Your task to perform on an android device: uninstall "Calculator" Image 0: 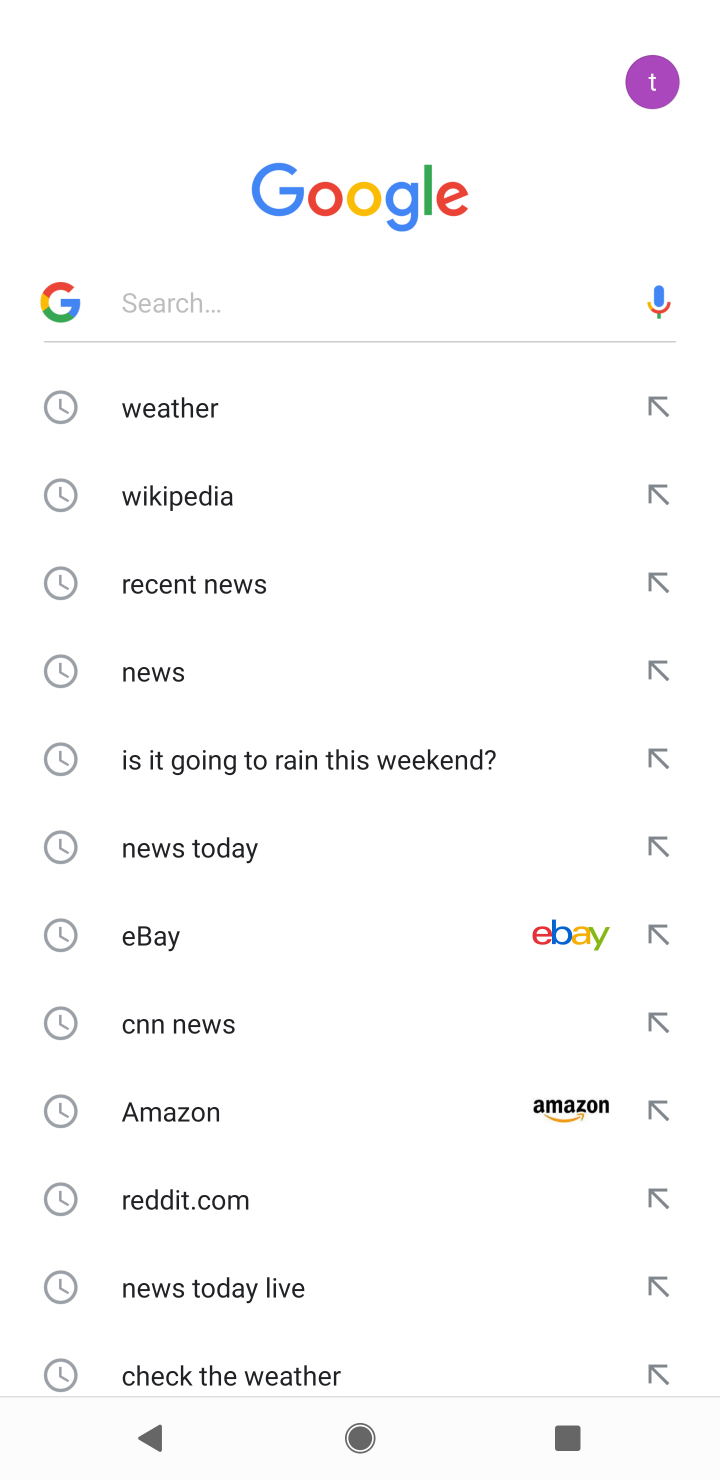
Step 0: press back button
Your task to perform on an android device: uninstall "Calculator" Image 1: 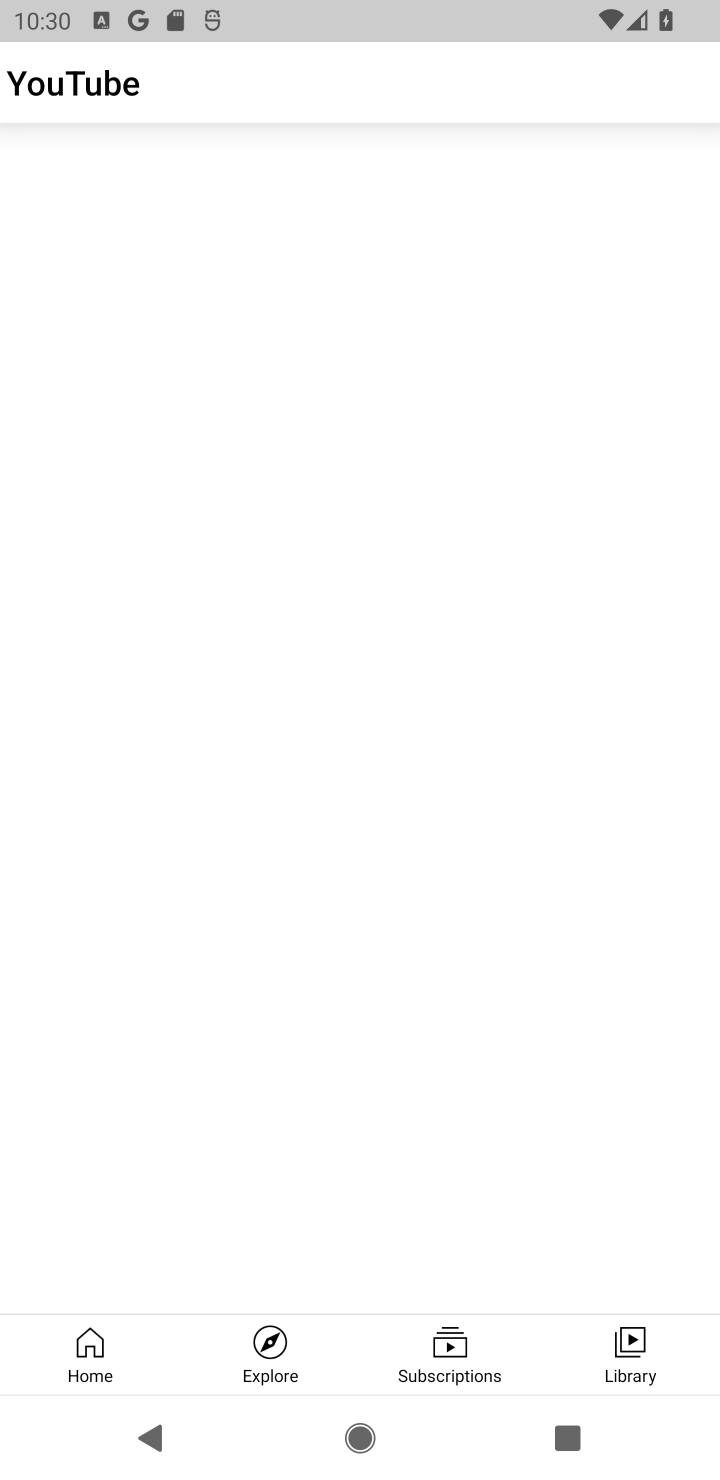
Step 1: press back button
Your task to perform on an android device: uninstall "Calculator" Image 2: 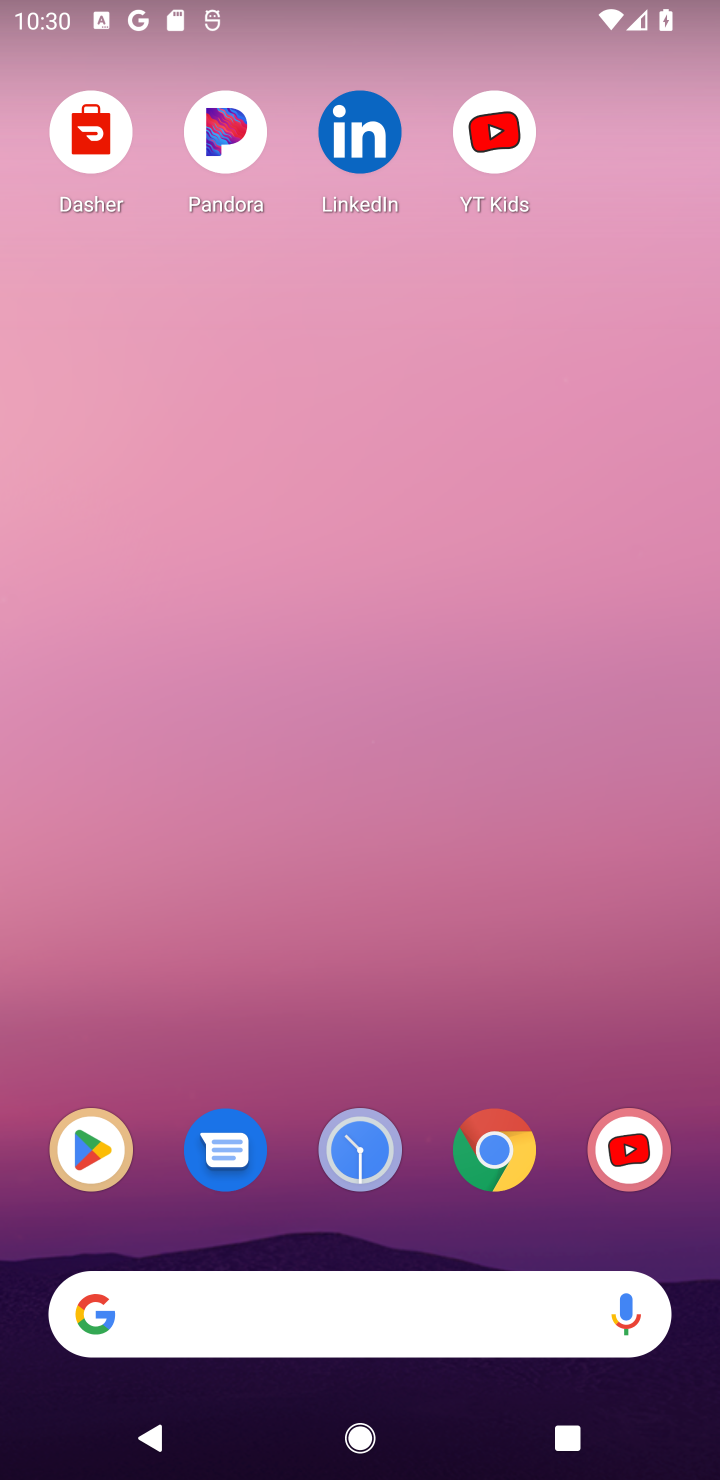
Step 2: click (66, 1157)
Your task to perform on an android device: uninstall "Calculator" Image 3: 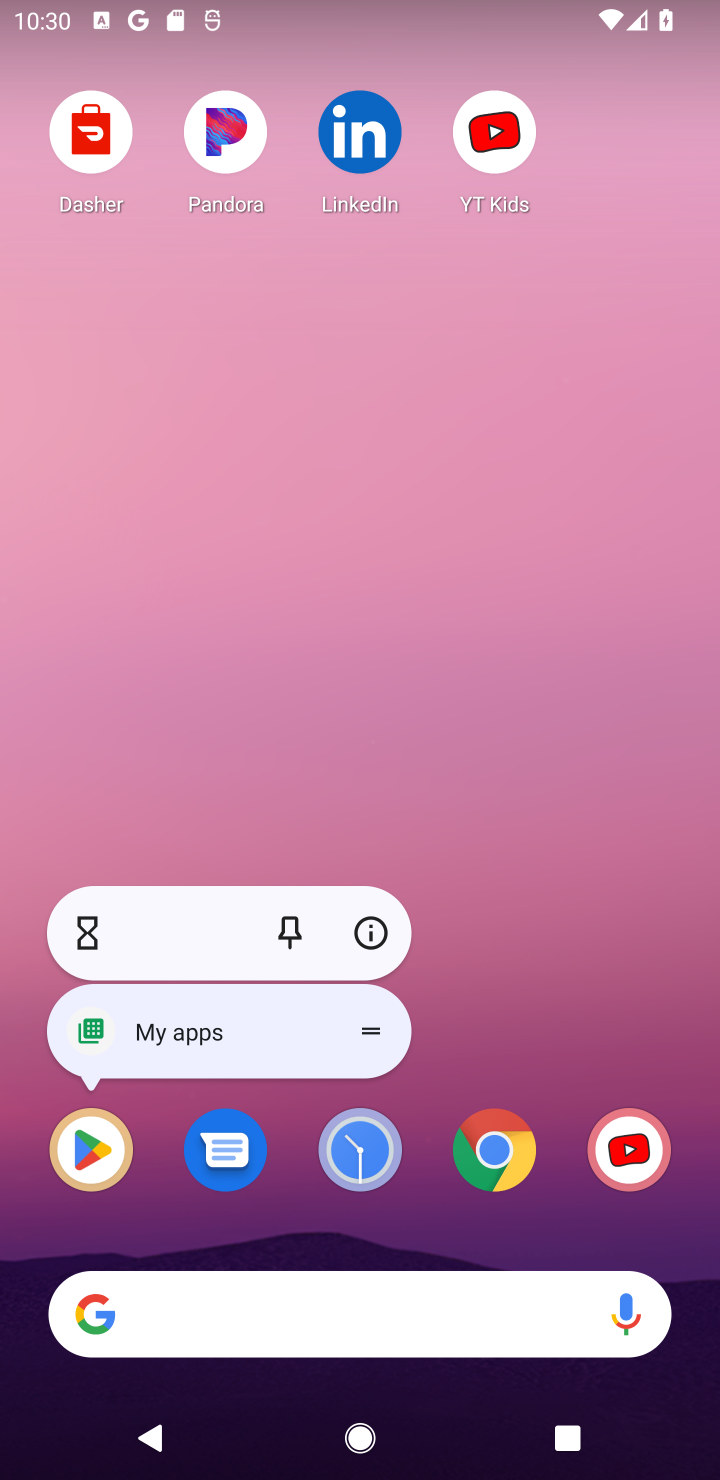
Step 3: click (98, 1148)
Your task to perform on an android device: uninstall "Calculator" Image 4: 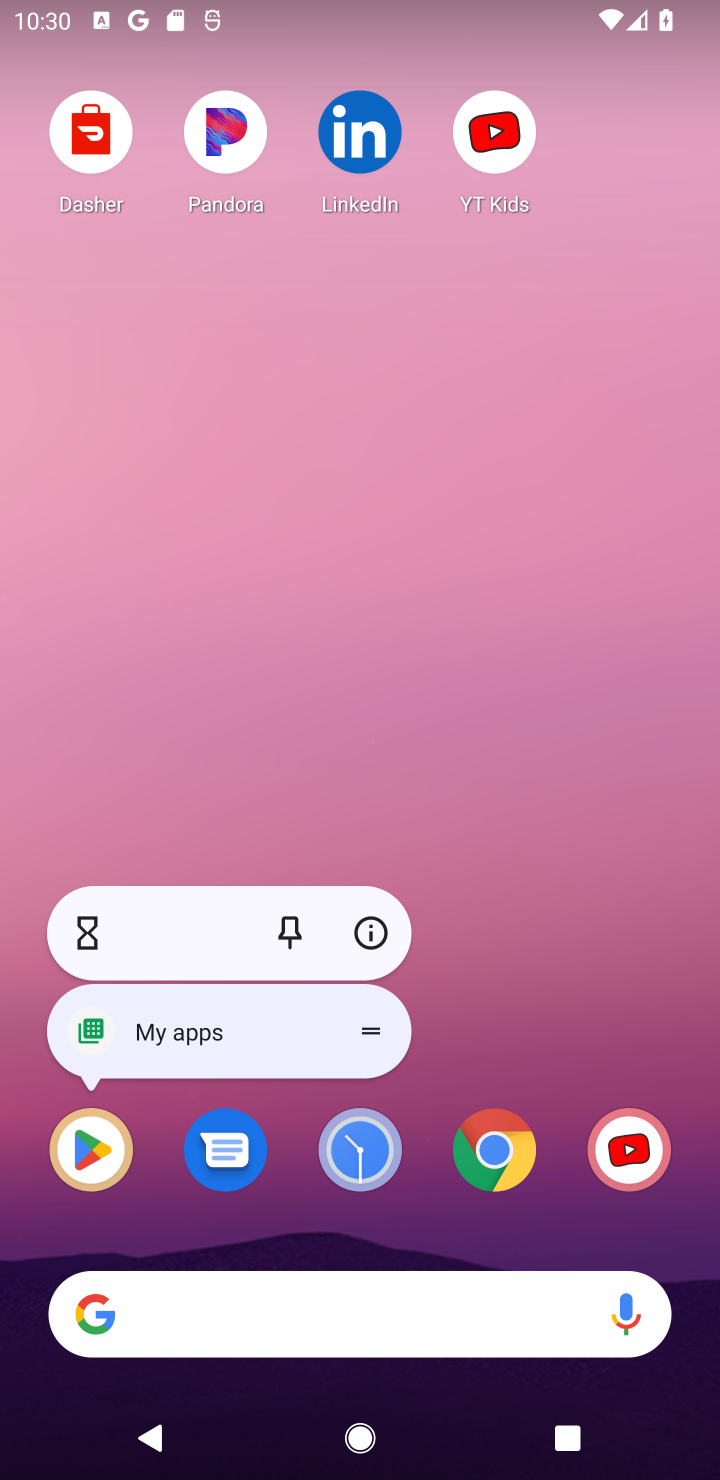
Step 4: click (106, 1151)
Your task to perform on an android device: uninstall "Calculator" Image 5: 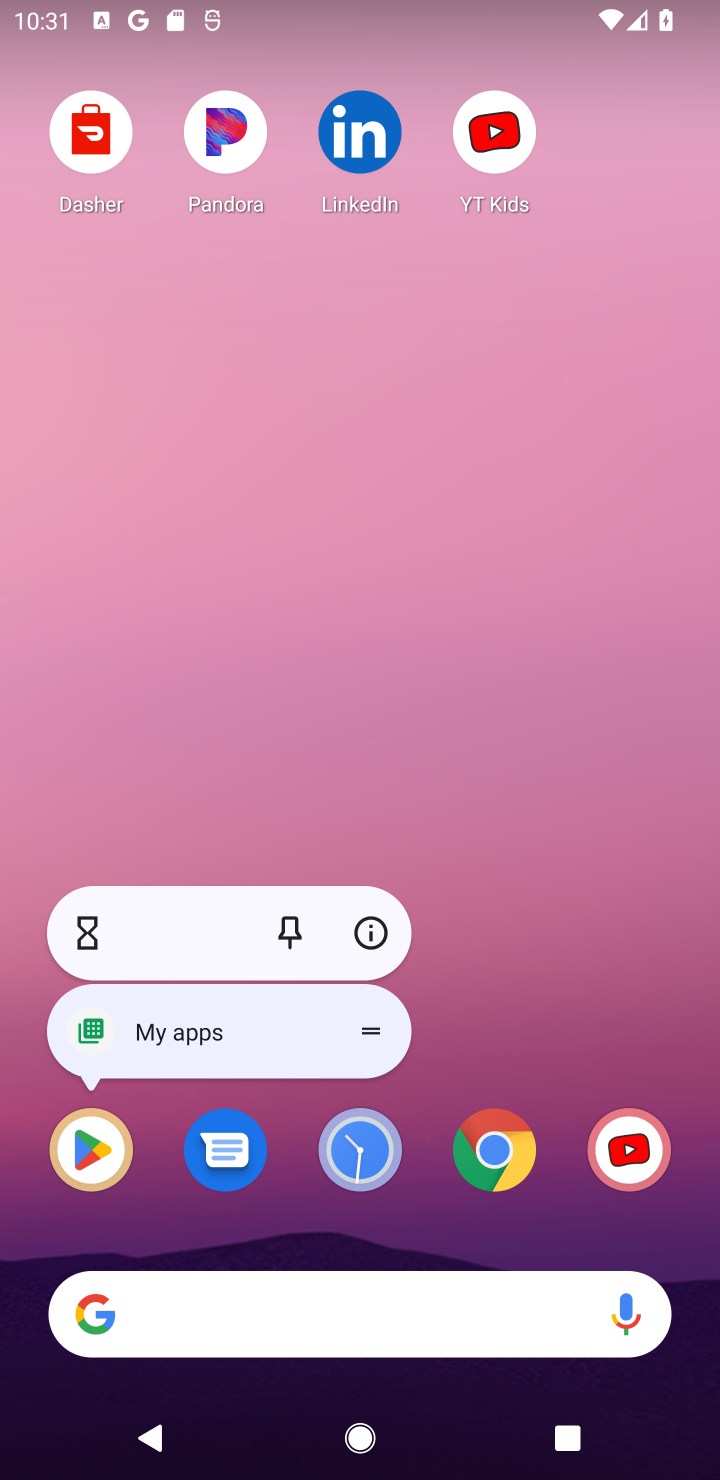
Step 5: click (92, 1167)
Your task to perform on an android device: uninstall "Calculator" Image 6: 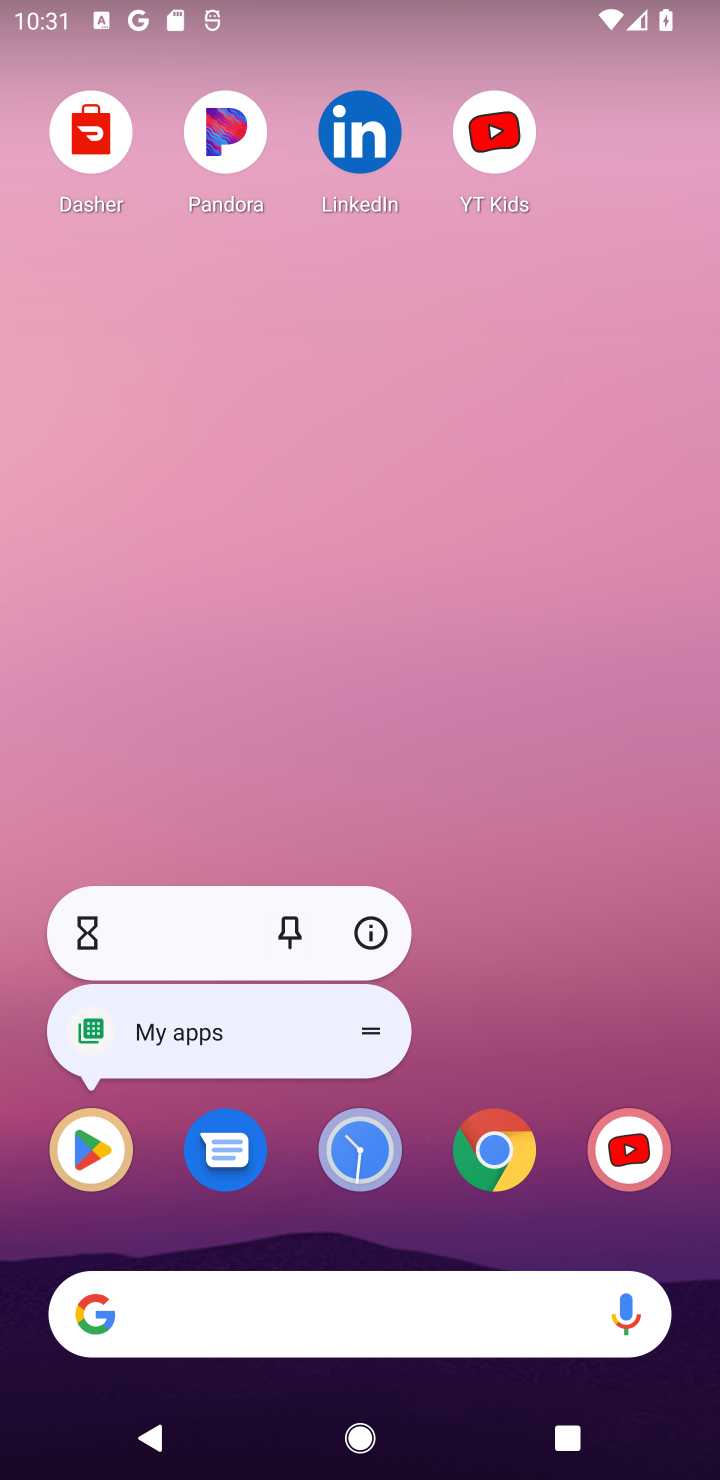
Step 6: click (98, 1158)
Your task to perform on an android device: uninstall "Calculator" Image 7: 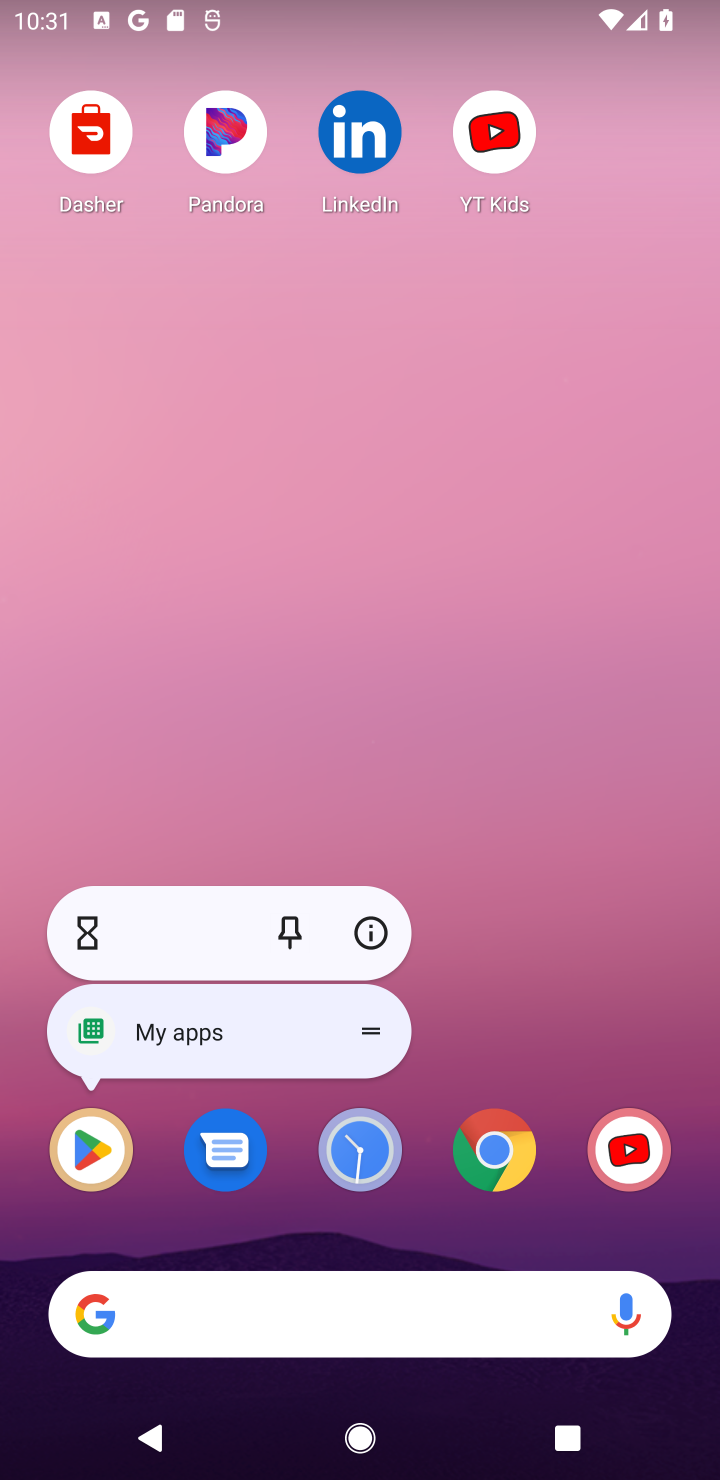
Step 7: click (98, 1158)
Your task to perform on an android device: uninstall "Calculator" Image 8: 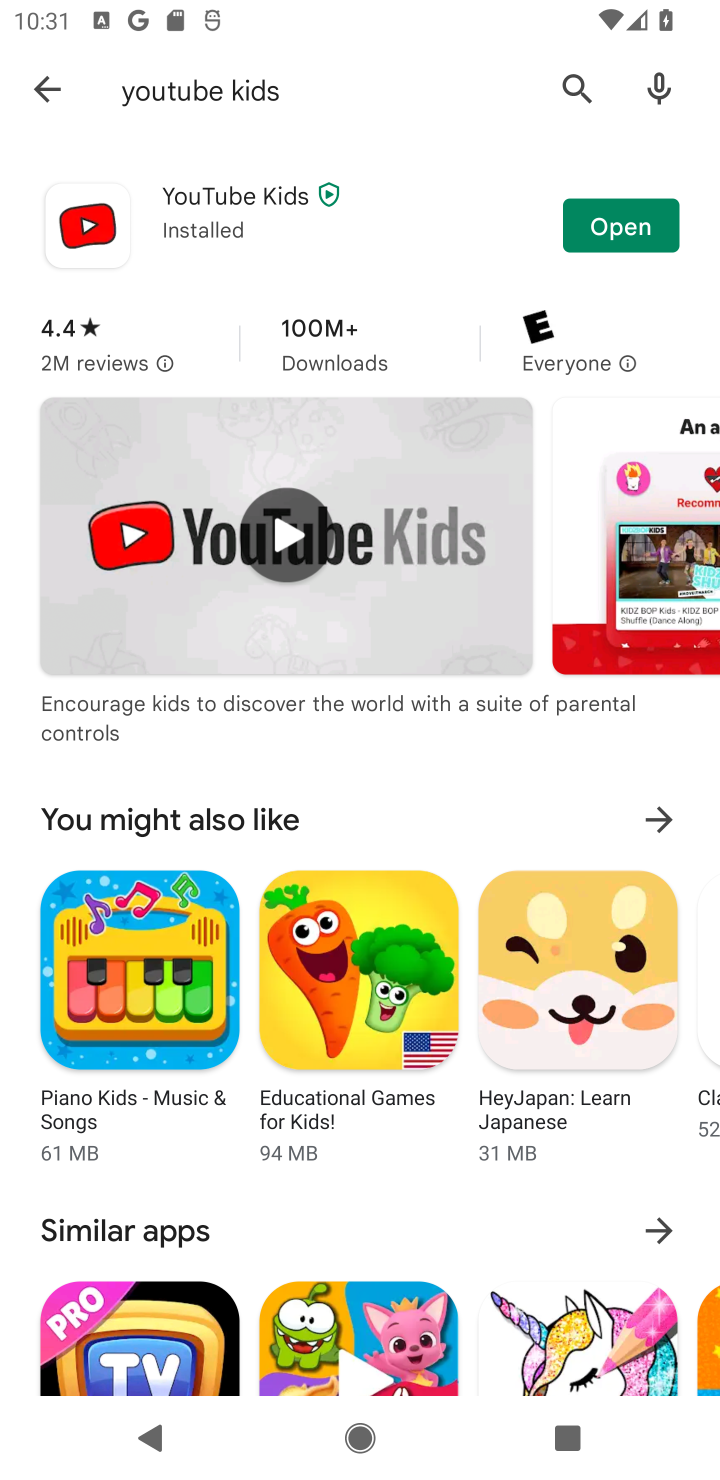
Step 8: click (590, 87)
Your task to perform on an android device: uninstall "Calculator" Image 9: 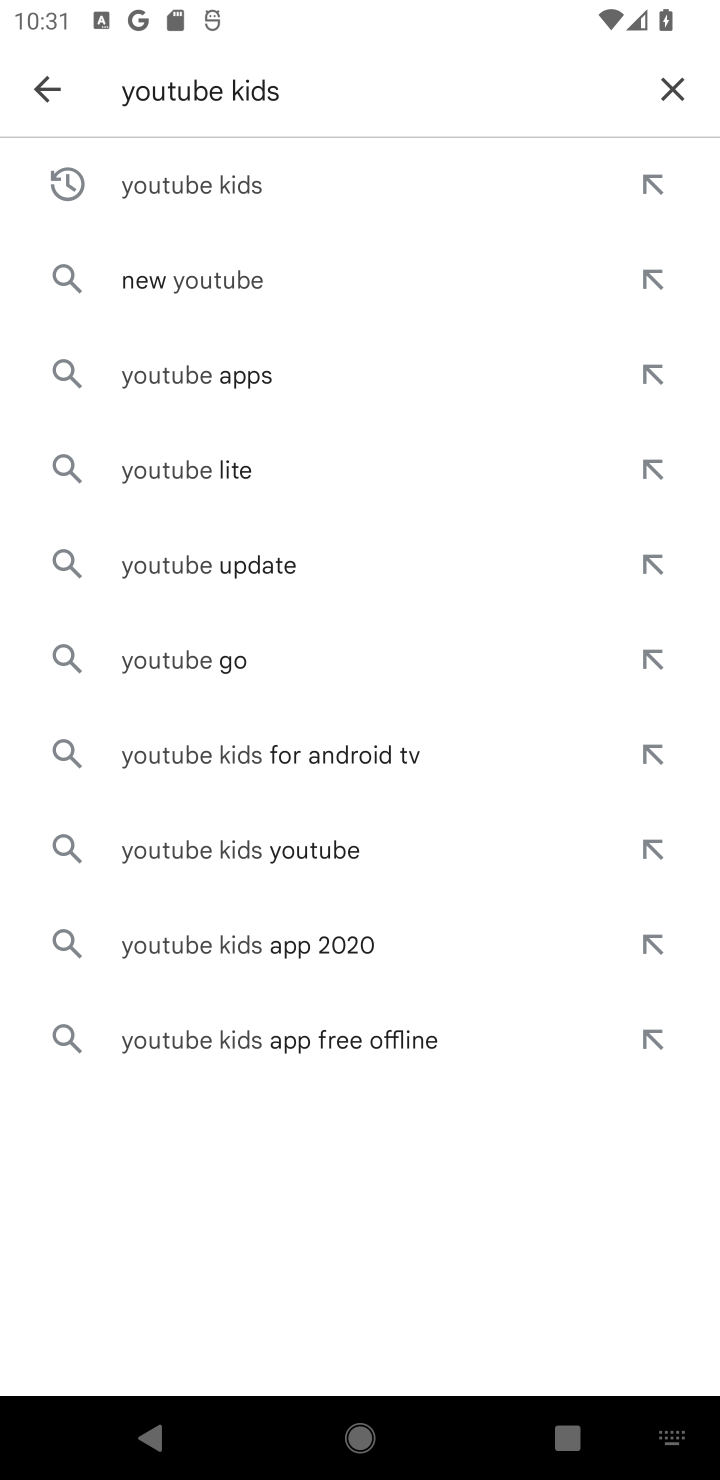
Step 9: click (672, 83)
Your task to perform on an android device: uninstall "Calculator" Image 10: 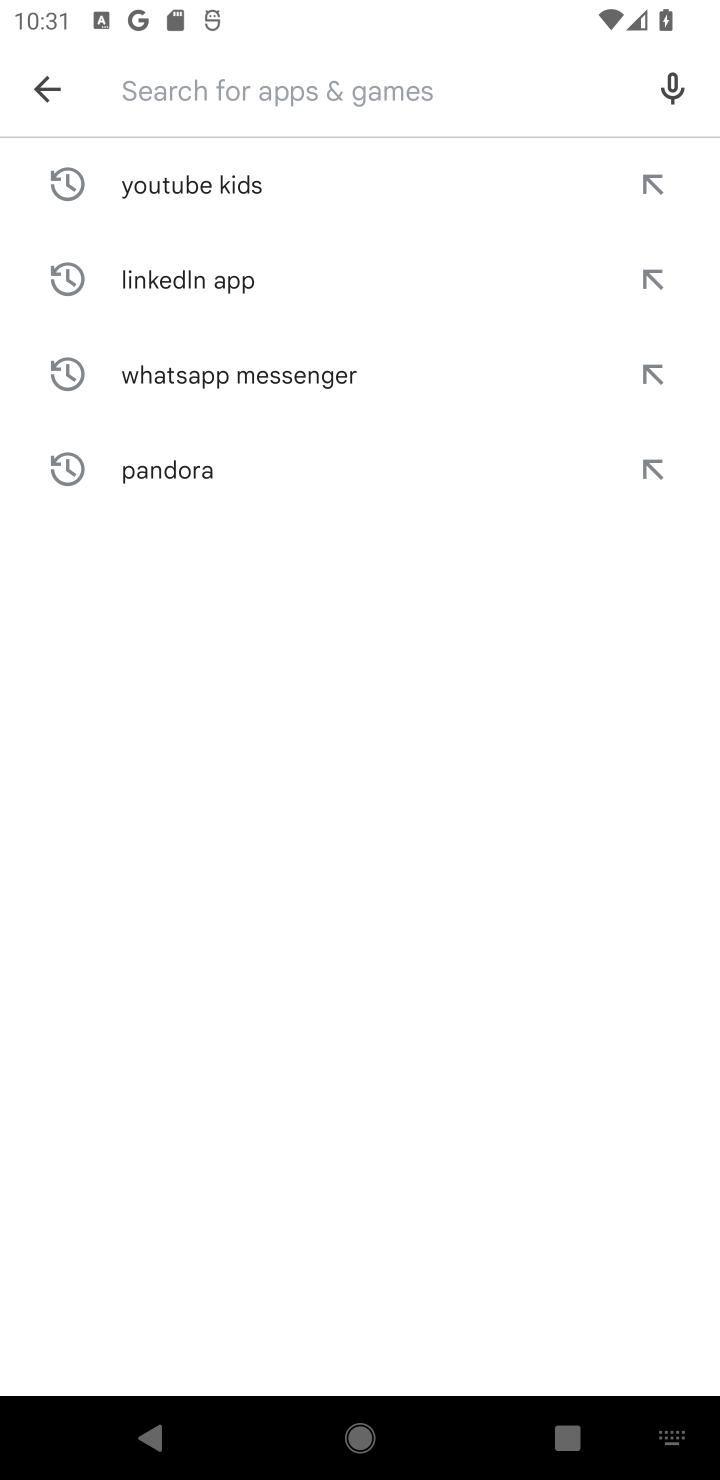
Step 10: click (379, 92)
Your task to perform on an android device: uninstall "Calculator" Image 11: 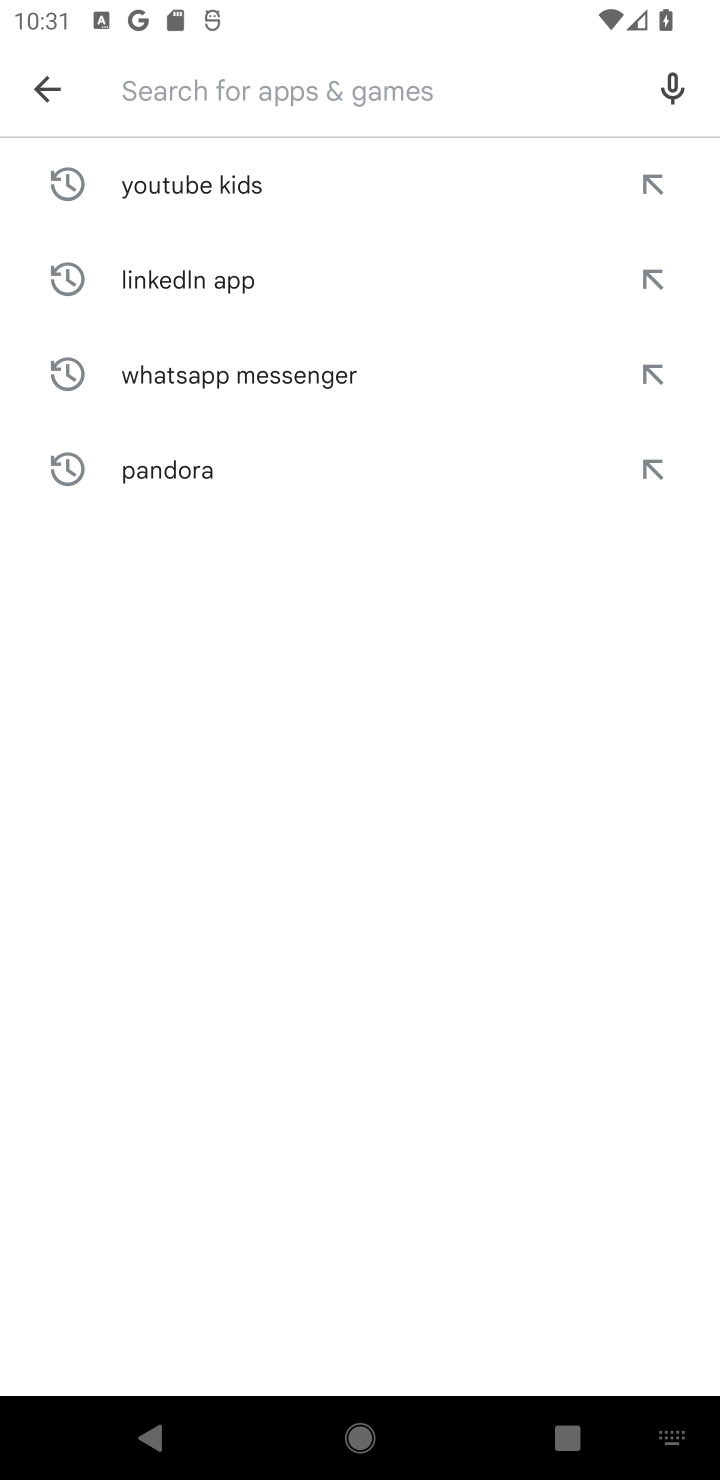
Step 11: type "calculator"
Your task to perform on an android device: uninstall "Calculator" Image 12: 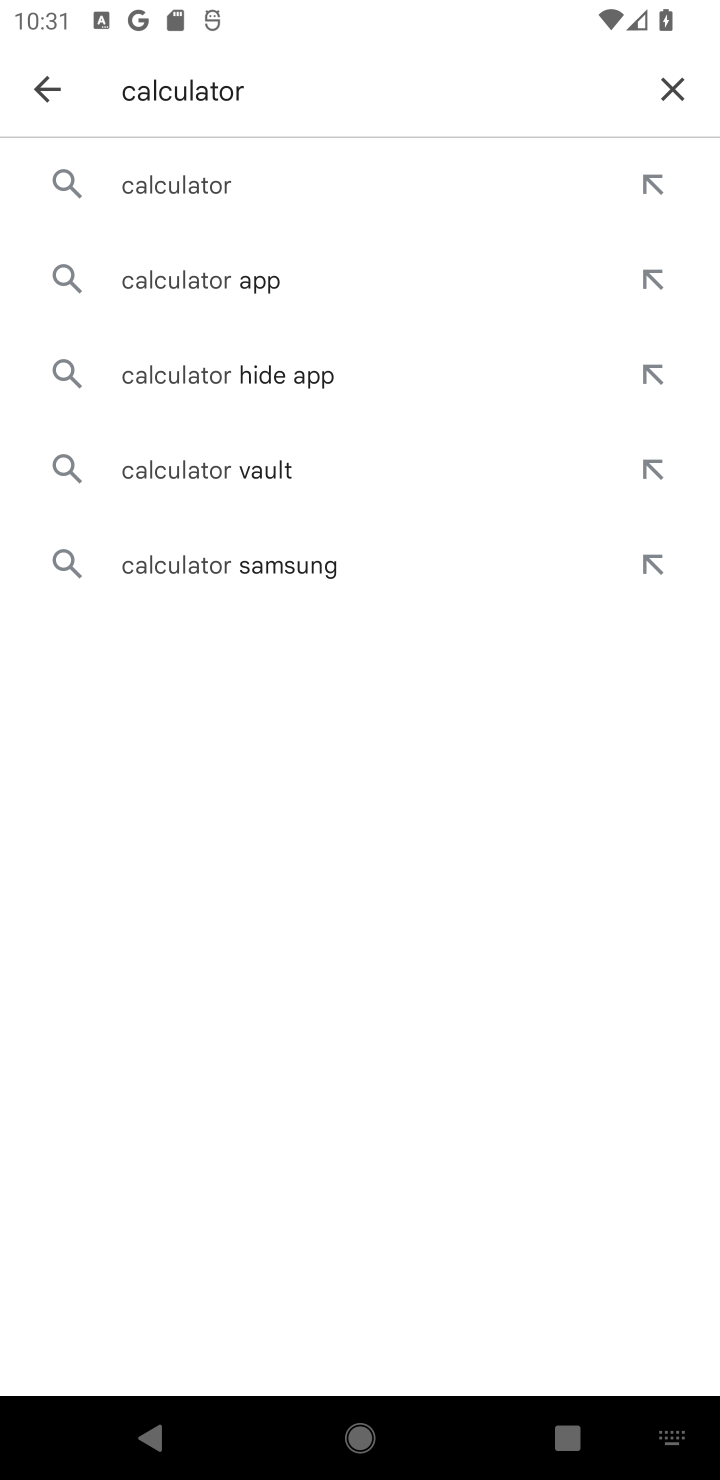
Step 12: click (435, 190)
Your task to perform on an android device: uninstall "Calculator" Image 13: 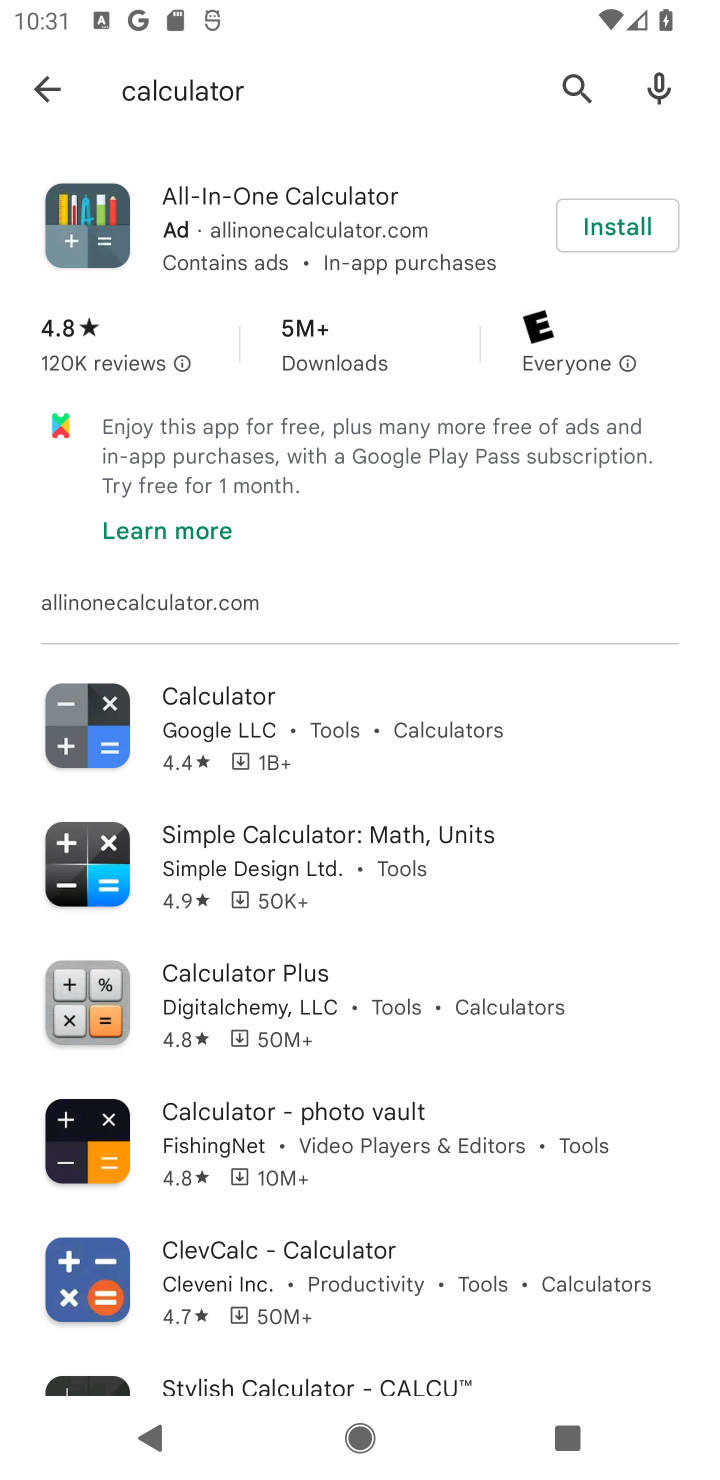
Step 13: click (286, 747)
Your task to perform on an android device: uninstall "Calculator" Image 14: 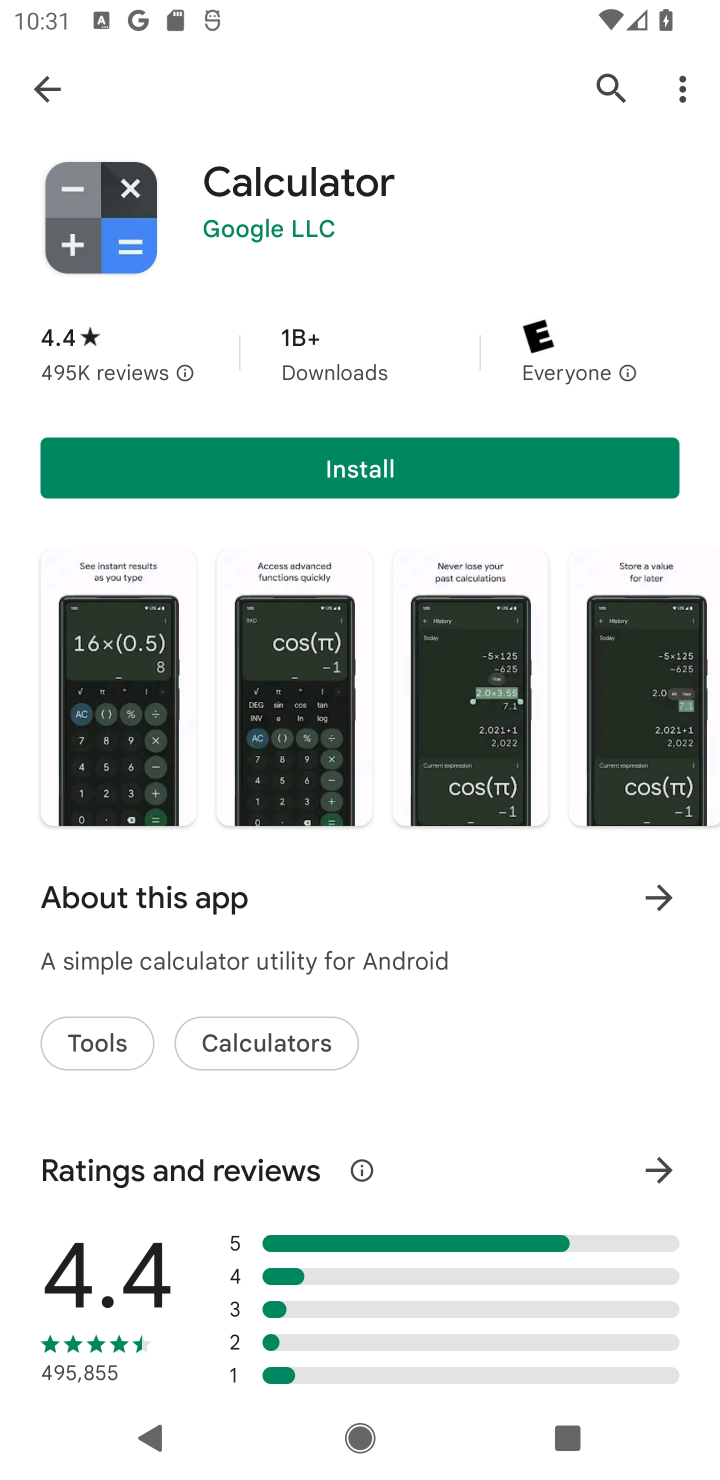
Step 14: task complete